Your task to perform on an android device: Search for logitech g pro on target.com, select the first entry, add it to the cart, then select checkout. Image 0: 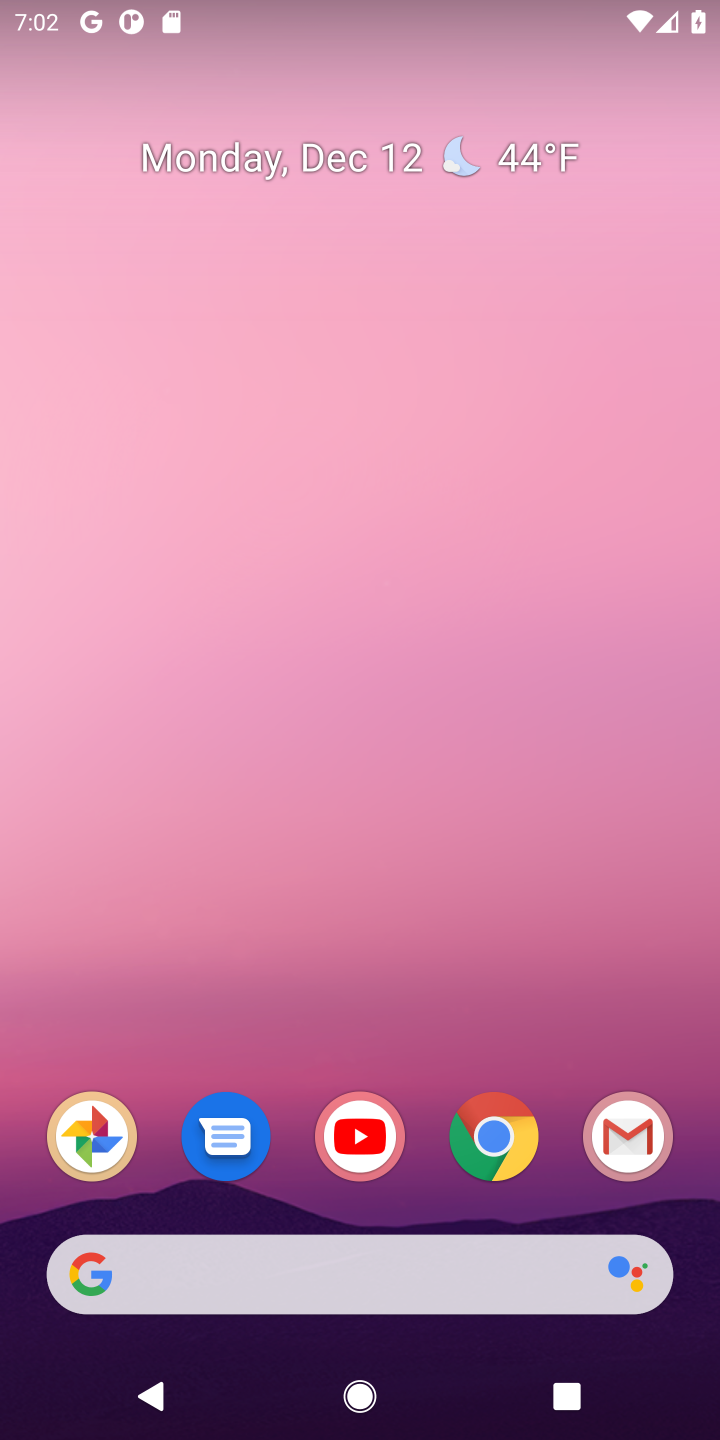
Step 0: click (502, 1147)
Your task to perform on an android device: Search for logitech g pro on target.com, select the first entry, add it to the cart, then select checkout. Image 1: 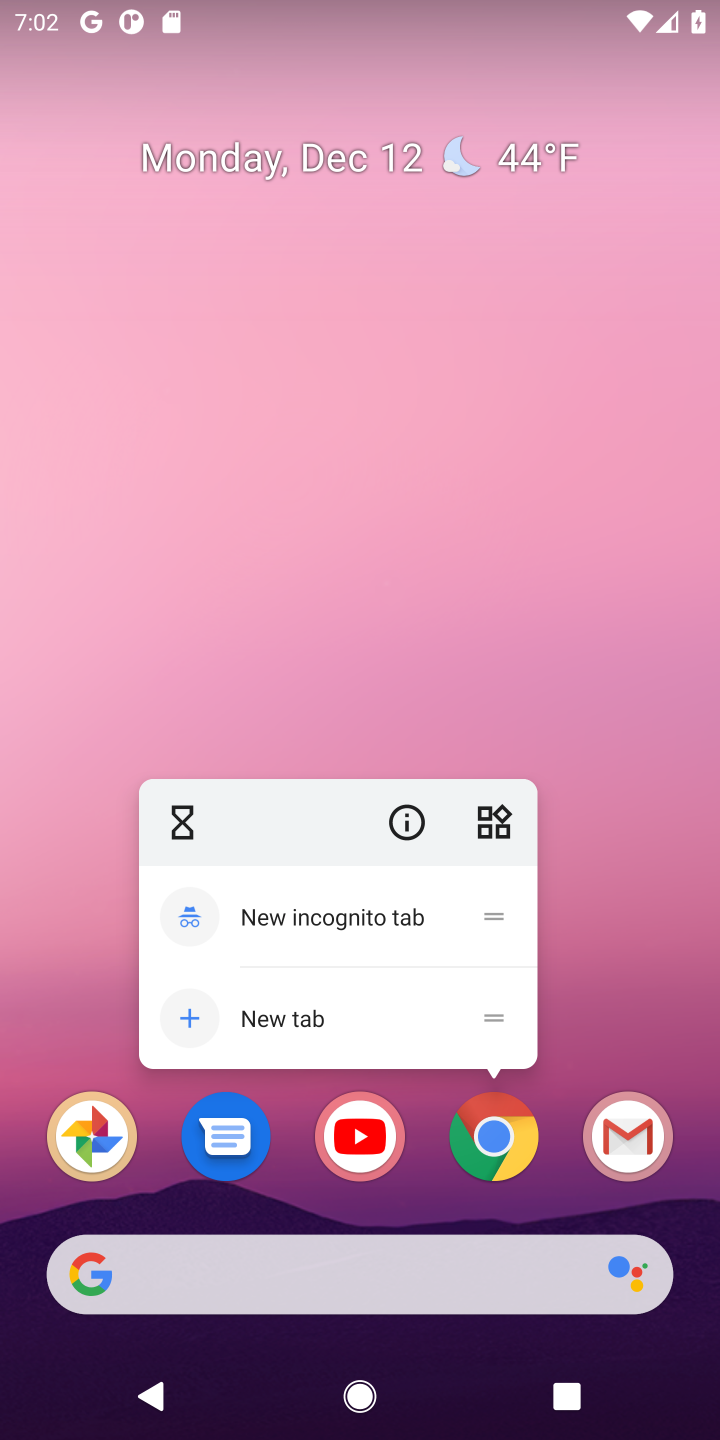
Step 1: click (490, 1153)
Your task to perform on an android device: Search for logitech g pro on target.com, select the first entry, add it to the cart, then select checkout. Image 2: 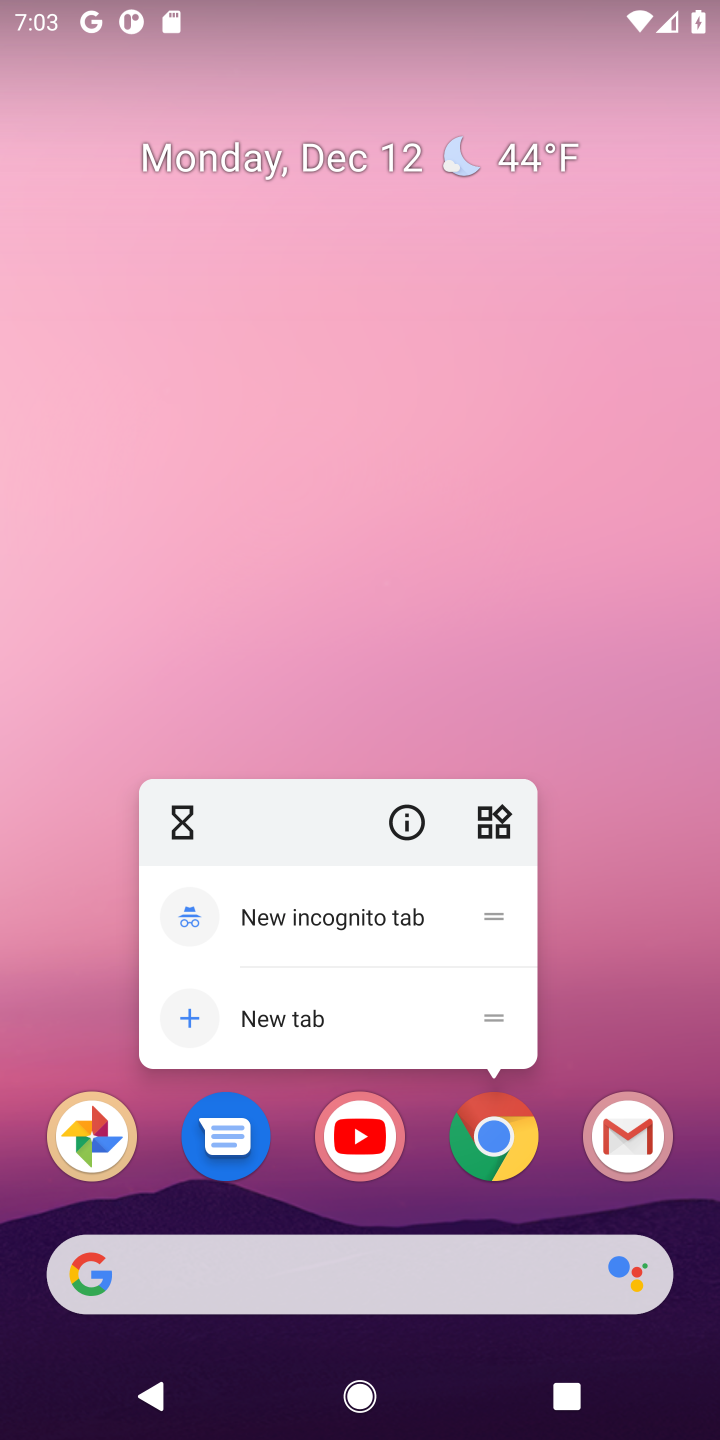
Step 2: click (490, 1153)
Your task to perform on an android device: Search for logitech g pro on target.com, select the first entry, add it to the cart, then select checkout. Image 3: 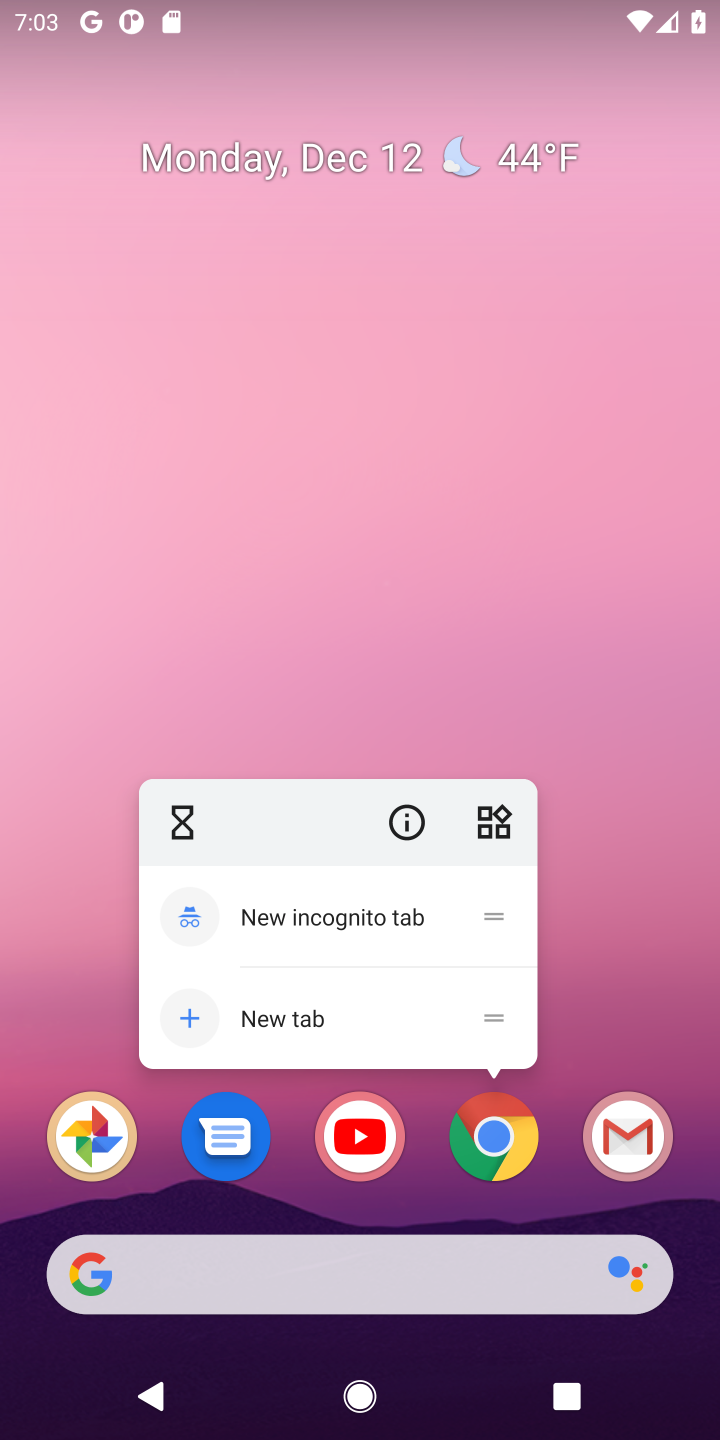
Step 3: click (490, 1153)
Your task to perform on an android device: Search for logitech g pro on target.com, select the first entry, add it to the cart, then select checkout. Image 4: 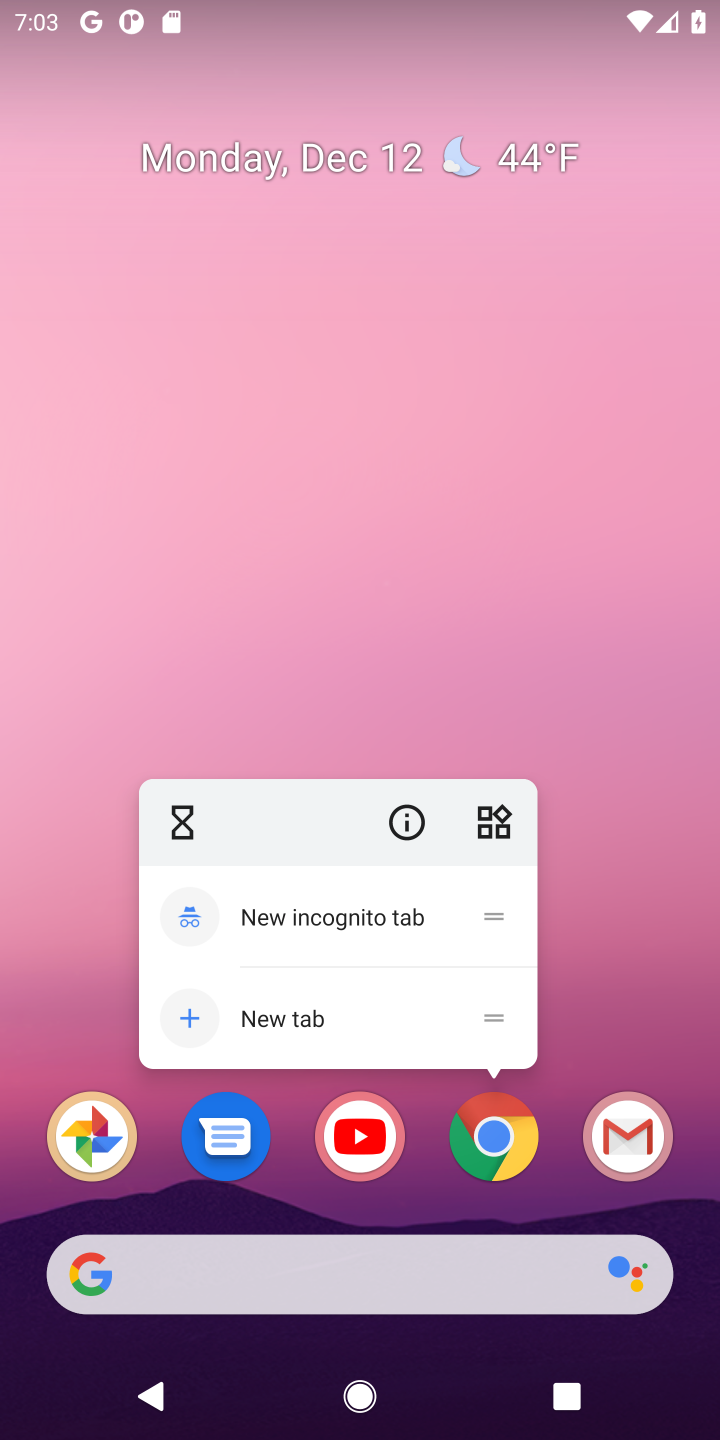
Step 4: click (490, 1153)
Your task to perform on an android device: Search for logitech g pro on target.com, select the first entry, add it to the cart, then select checkout. Image 5: 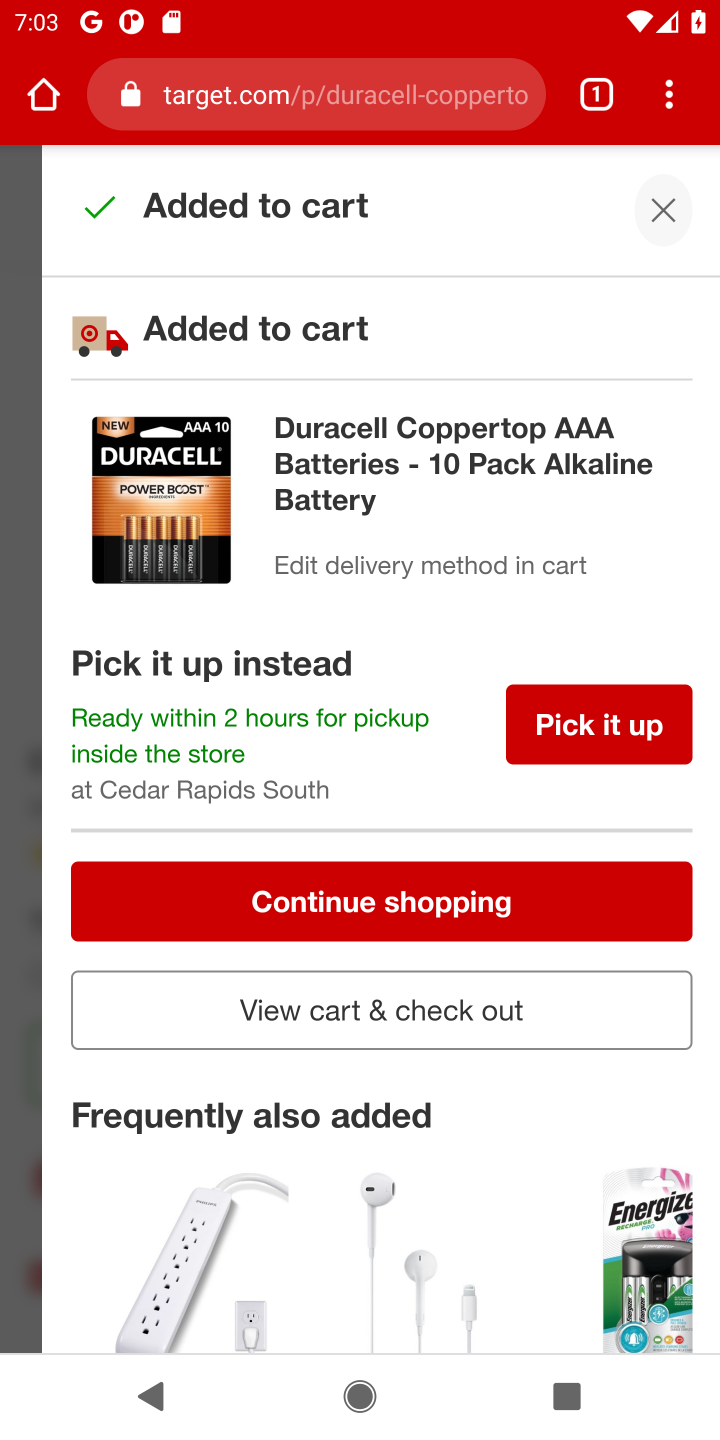
Step 5: click (672, 218)
Your task to perform on an android device: Search for logitech g pro on target.com, select the first entry, add it to the cart, then select checkout. Image 6: 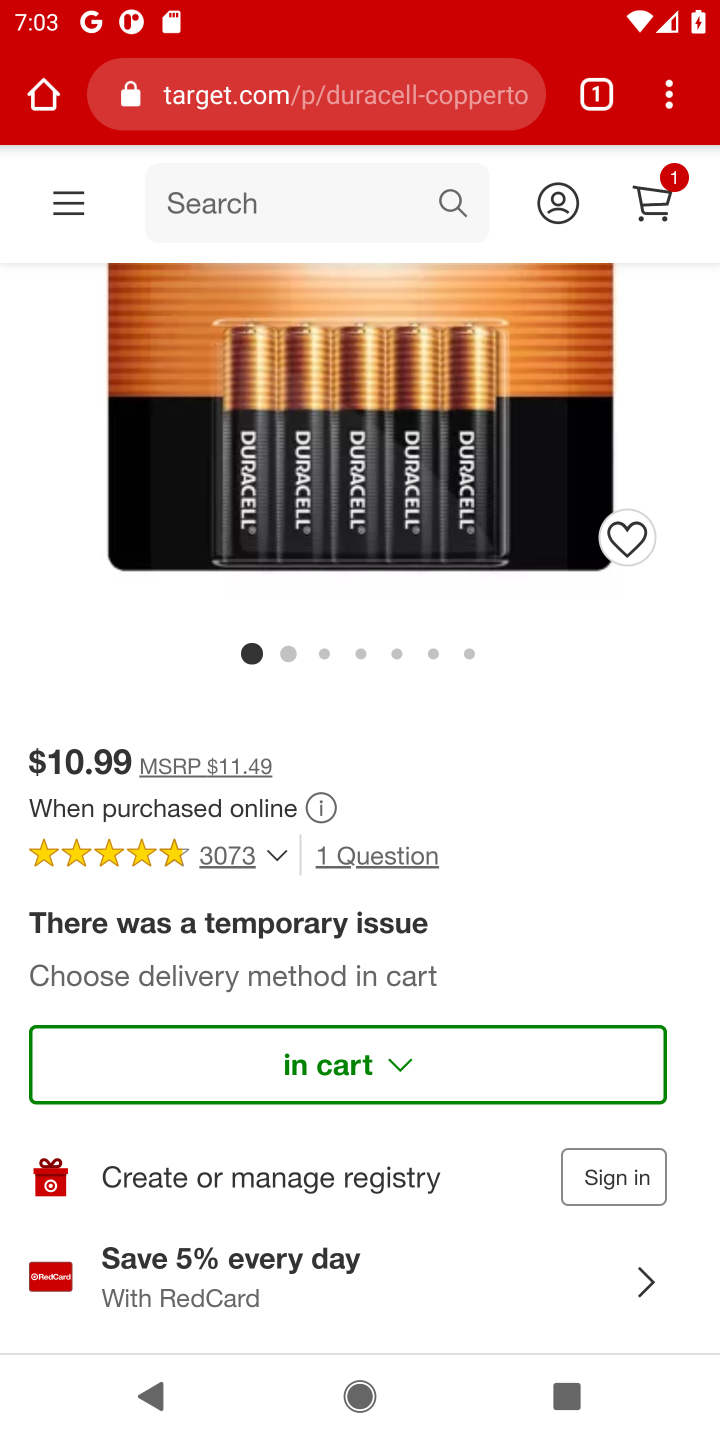
Step 6: click (450, 201)
Your task to perform on an android device: Search for logitech g pro on target.com, select the first entry, add it to the cart, then select checkout. Image 7: 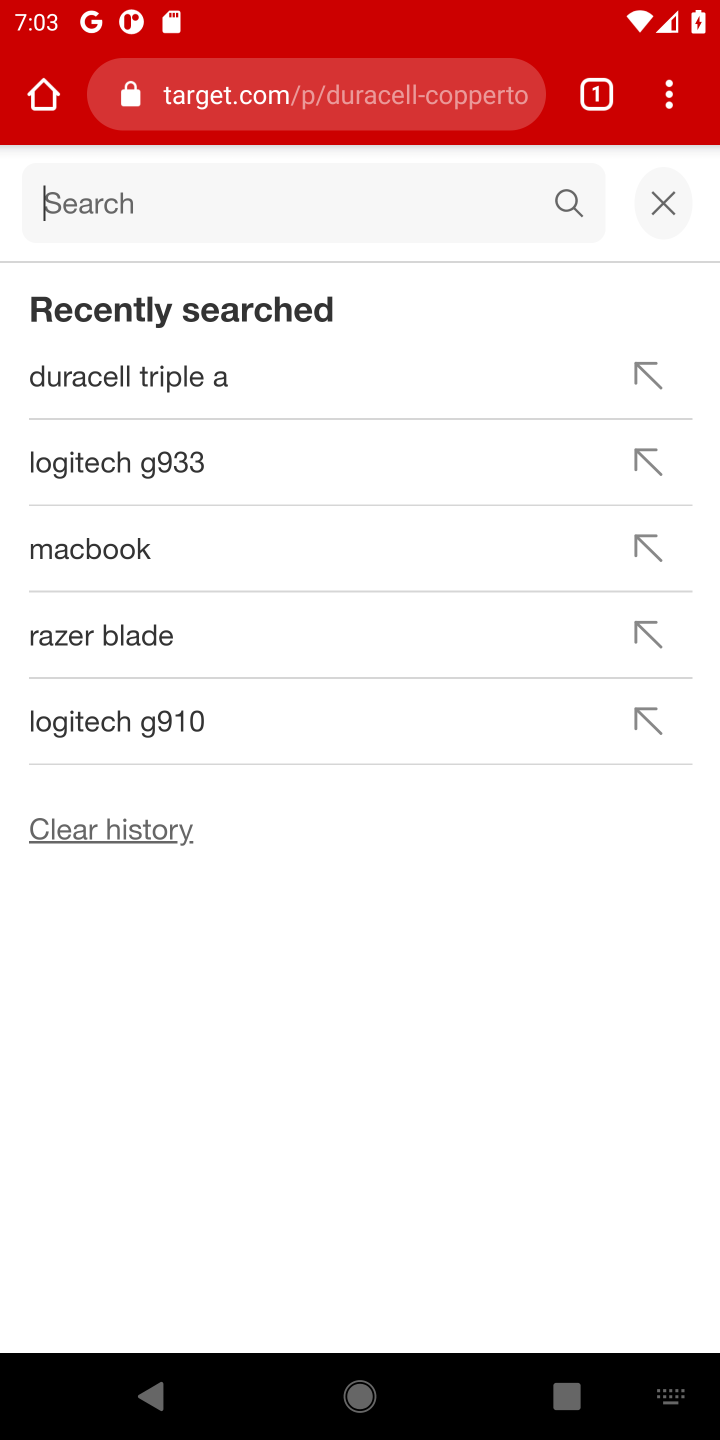
Step 7: type "logitech g pro "
Your task to perform on an android device: Search for logitech g pro on target.com, select the first entry, add it to the cart, then select checkout. Image 8: 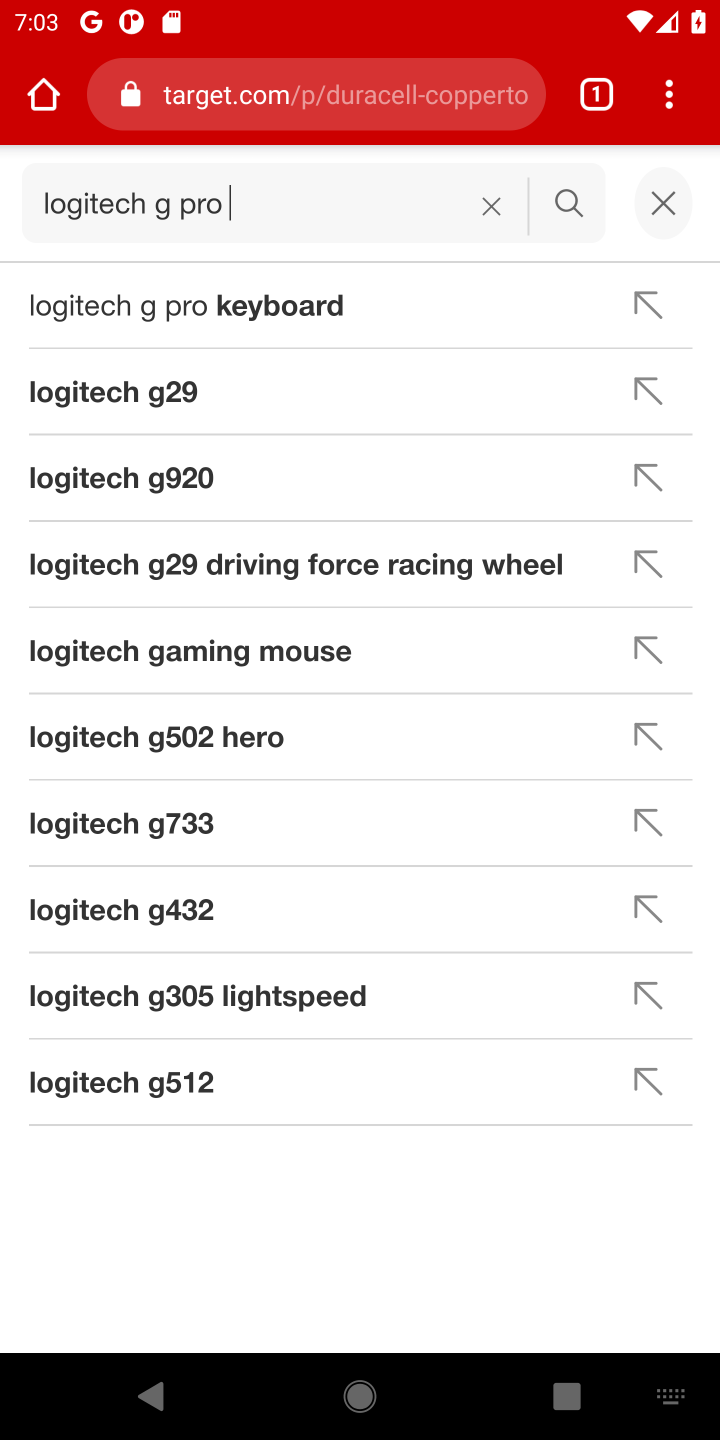
Step 8: click (563, 207)
Your task to perform on an android device: Search for logitech g pro on target.com, select the first entry, add it to the cart, then select checkout. Image 9: 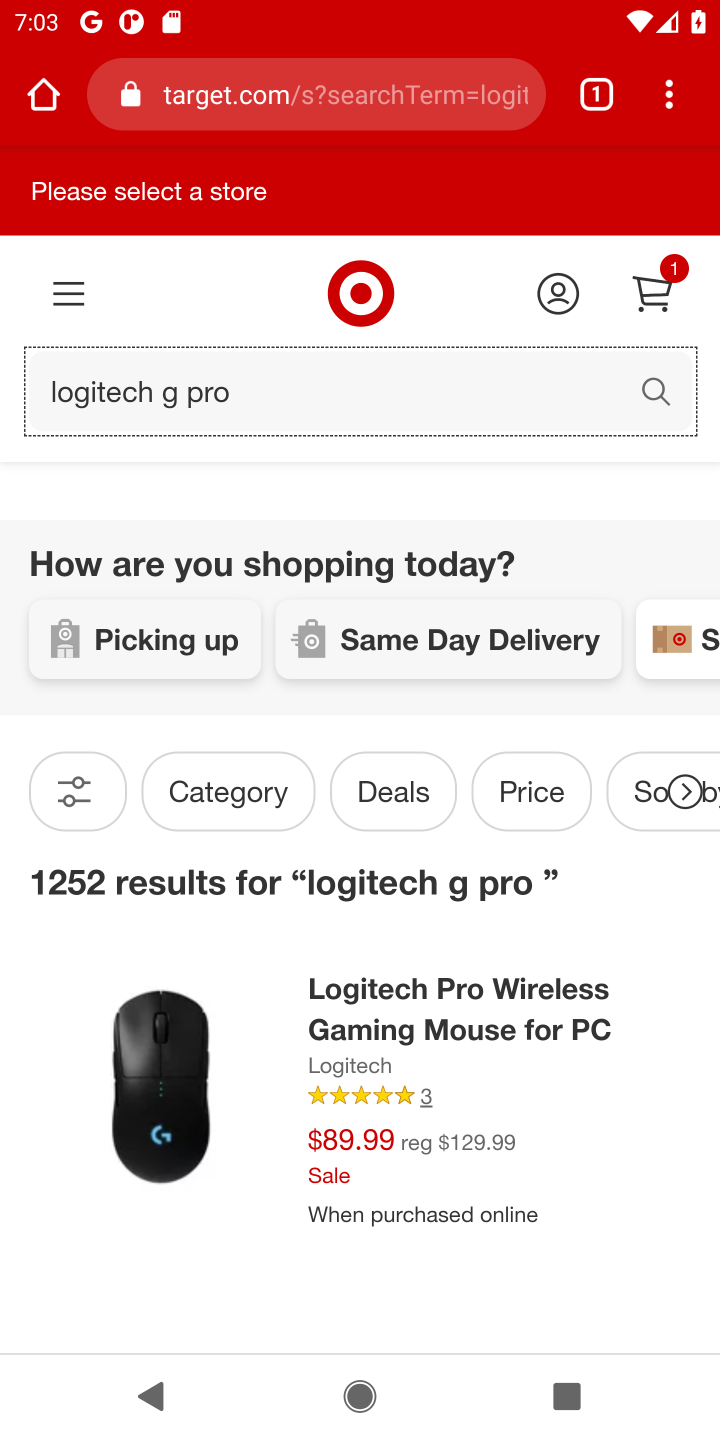
Step 9: task complete